Your task to perform on an android device: Open Youtube and go to "Your channel" Image 0: 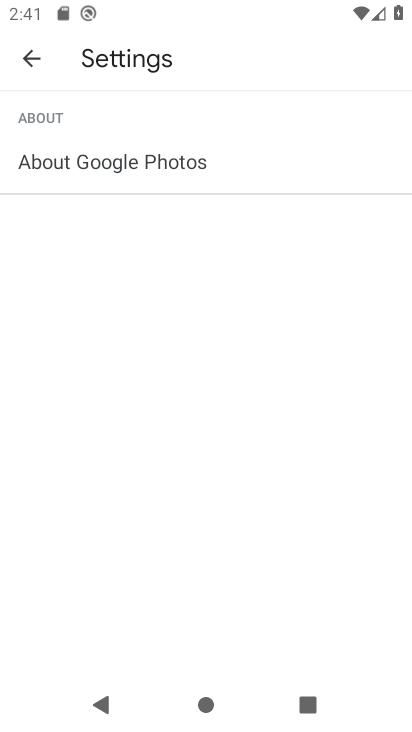
Step 0: press home button
Your task to perform on an android device: Open Youtube and go to "Your channel" Image 1: 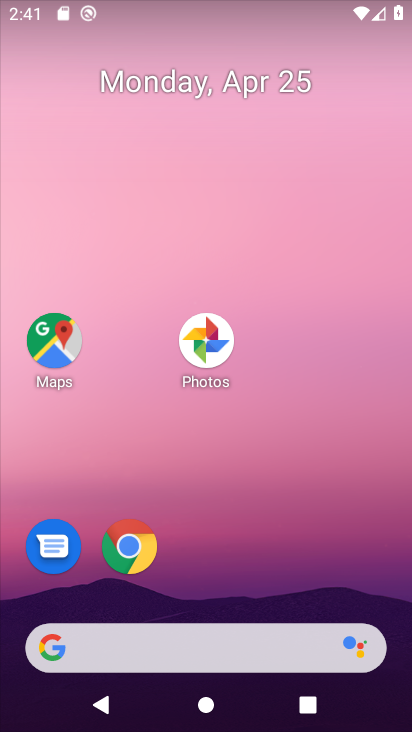
Step 1: drag from (284, 584) to (361, 169)
Your task to perform on an android device: Open Youtube and go to "Your channel" Image 2: 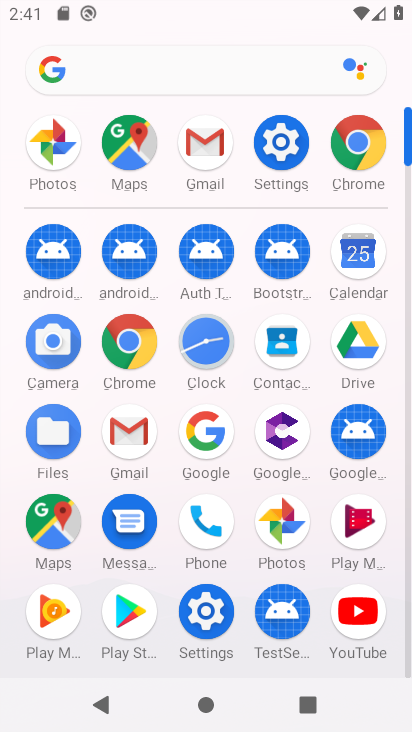
Step 2: click (371, 610)
Your task to perform on an android device: Open Youtube and go to "Your channel" Image 3: 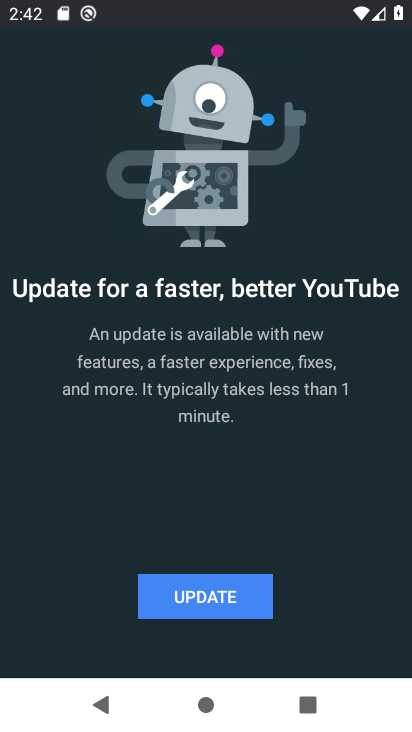
Step 3: task complete